Your task to perform on an android device: turn notification dots on Image 0: 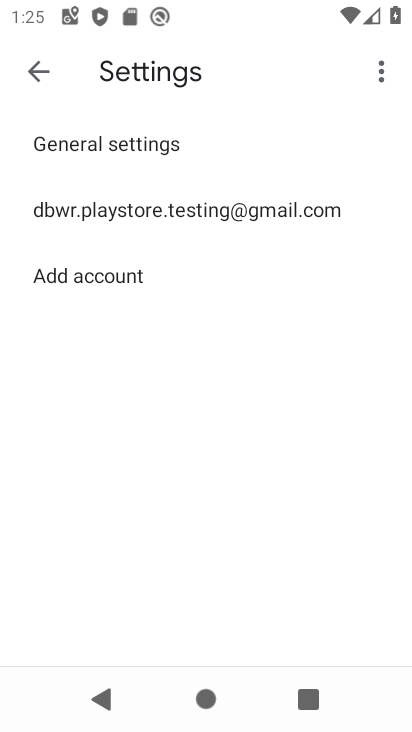
Step 0: press back button
Your task to perform on an android device: turn notification dots on Image 1: 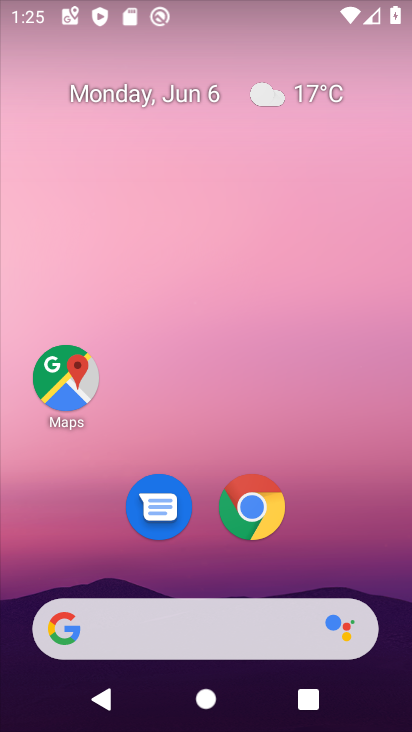
Step 1: drag from (347, 558) to (246, 45)
Your task to perform on an android device: turn notification dots on Image 2: 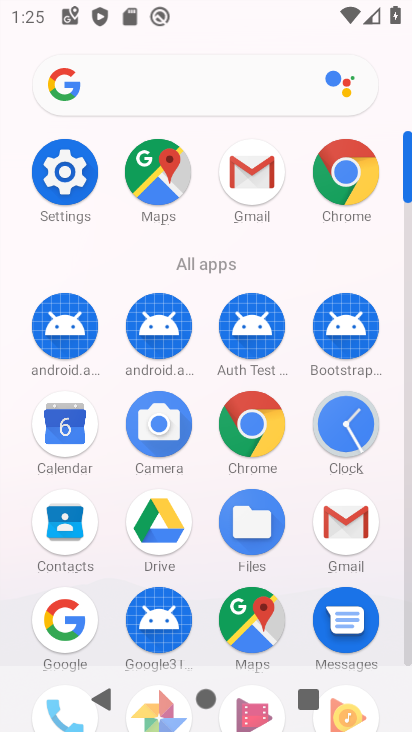
Step 2: click (65, 172)
Your task to perform on an android device: turn notification dots on Image 3: 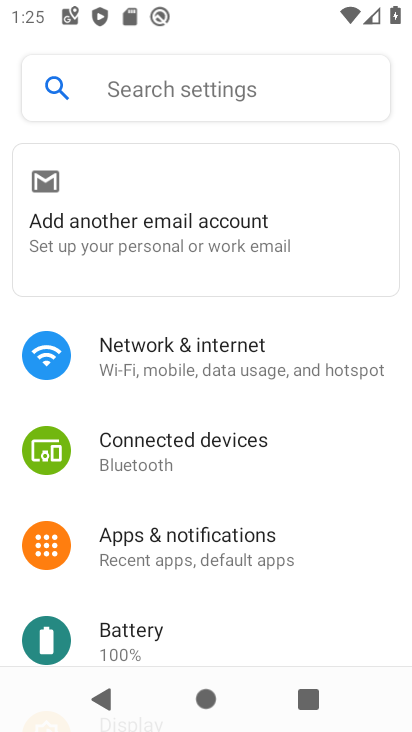
Step 3: click (234, 510)
Your task to perform on an android device: turn notification dots on Image 4: 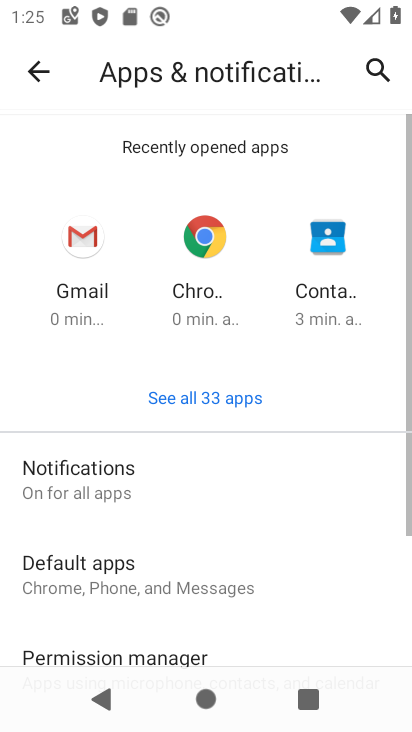
Step 4: click (167, 466)
Your task to perform on an android device: turn notification dots on Image 5: 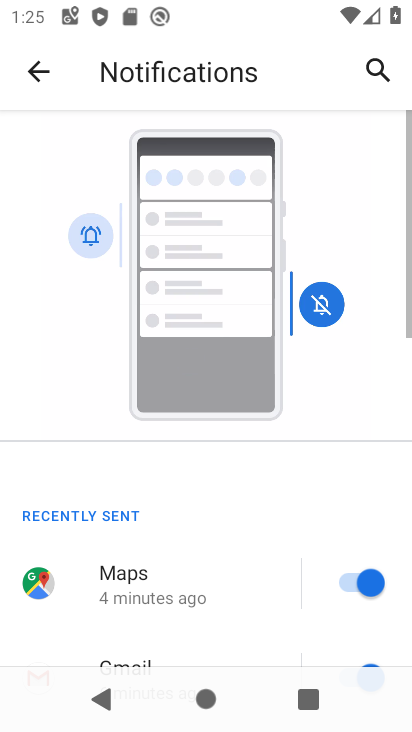
Step 5: drag from (224, 603) to (204, 94)
Your task to perform on an android device: turn notification dots on Image 6: 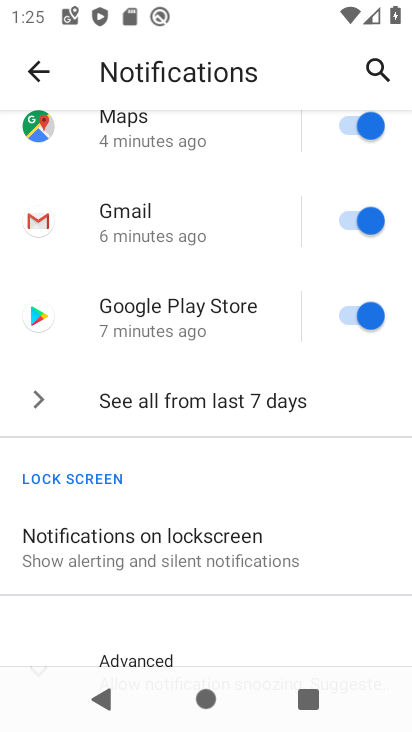
Step 6: drag from (238, 595) to (222, 197)
Your task to perform on an android device: turn notification dots on Image 7: 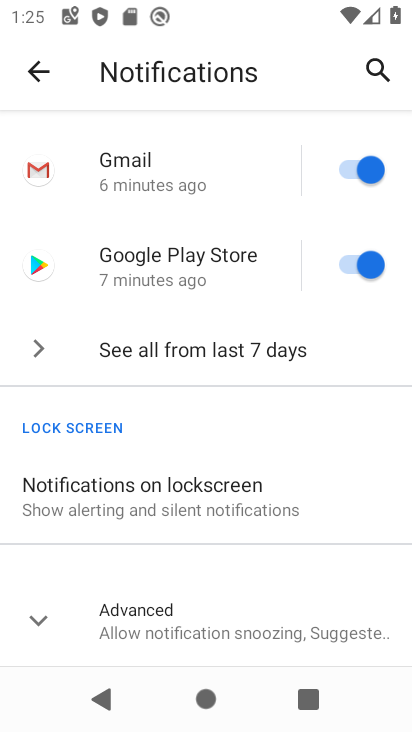
Step 7: click (192, 614)
Your task to perform on an android device: turn notification dots on Image 8: 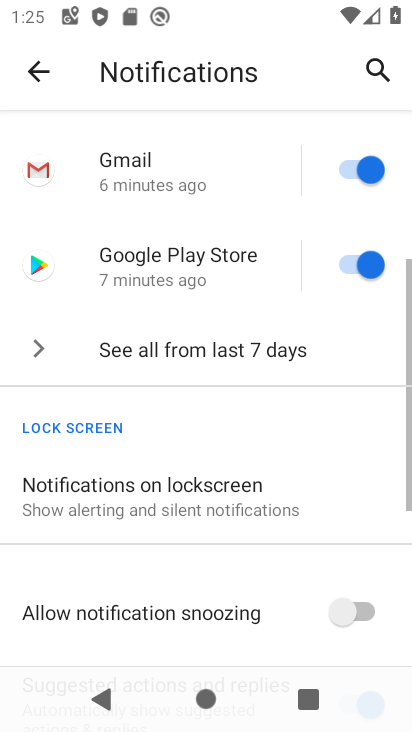
Step 8: task complete